Your task to perform on an android device: Do I have any events today? Image 0: 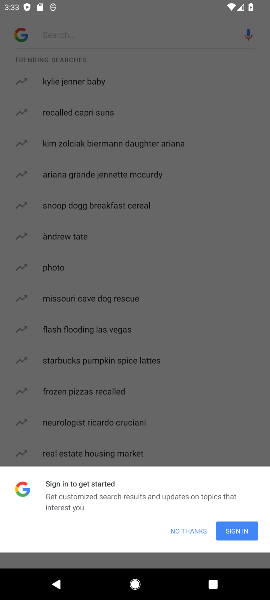
Step 0: press home button
Your task to perform on an android device: Do I have any events today? Image 1: 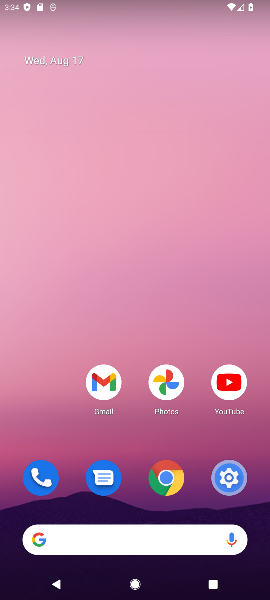
Step 1: click (53, 63)
Your task to perform on an android device: Do I have any events today? Image 2: 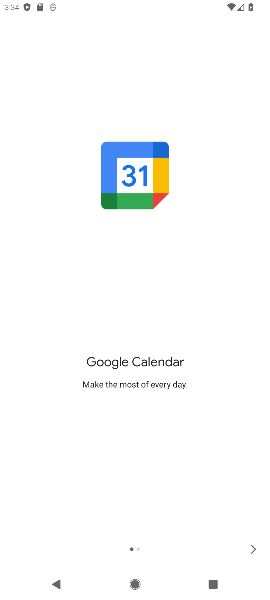
Step 2: click (251, 553)
Your task to perform on an android device: Do I have any events today? Image 3: 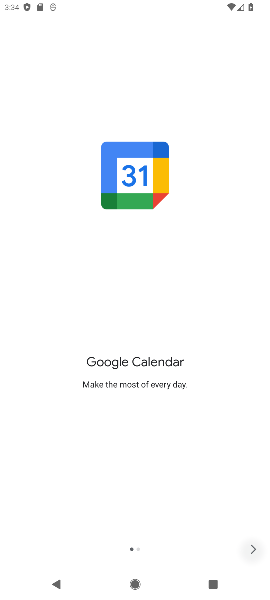
Step 3: click (251, 551)
Your task to perform on an android device: Do I have any events today? Image 4: 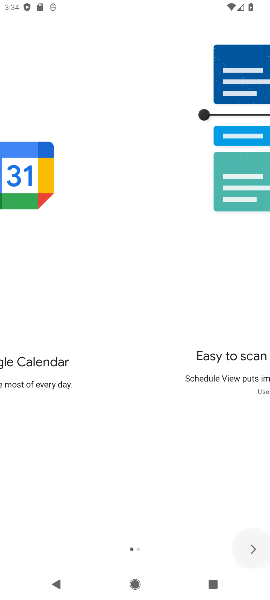
Step 4: click (251, 551)
Your task to perform on an android device: Do I have any events today? Image 5: 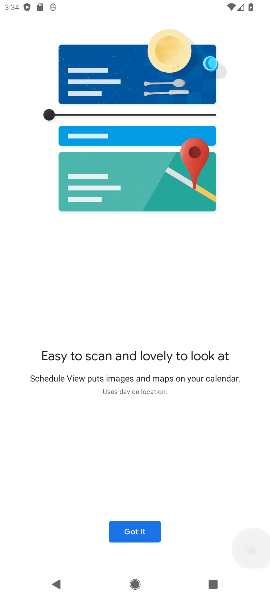
Step 5: click (252, 544)
Your task to perform on an android device: Do I have any events today? Image 6: 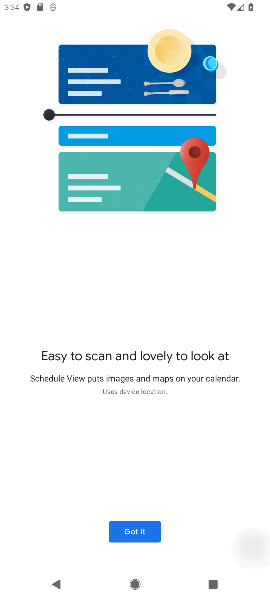
Step 6: click (252, 544)
Your task to perform on an android device: Do I have any events today? Image 7: 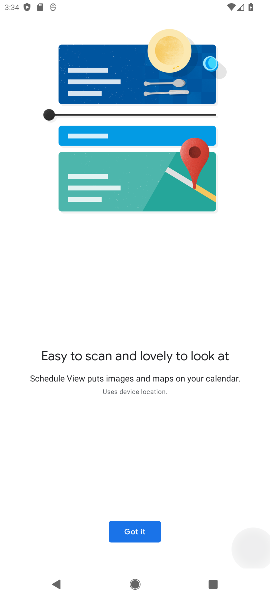
Step 7: click (137, 523)
Your task to perform on an android device: Do I have any events today? Image 8: 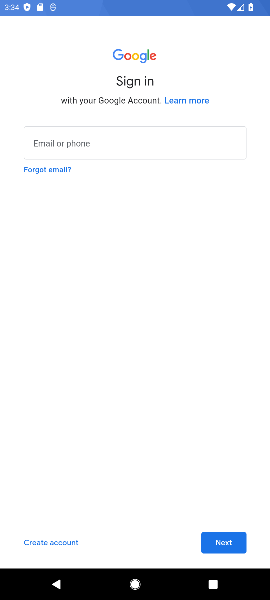
Step 8: task complete